Your task to perform on an android device: change the clock display to analog Image 0: 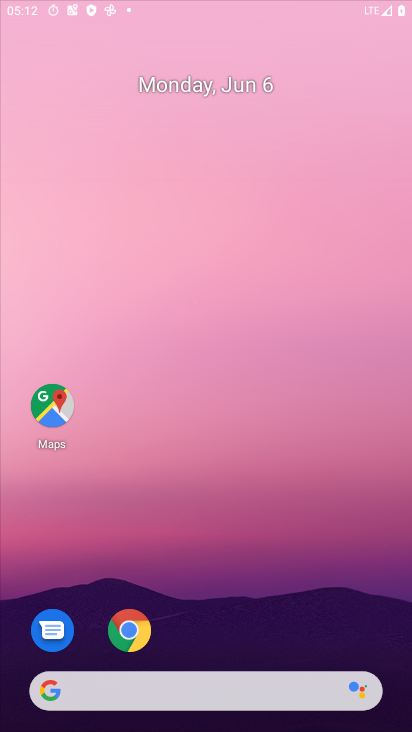
Step 0: click (390, 518)
Your task to perform on an android device: change the clock display to analog Image 1: 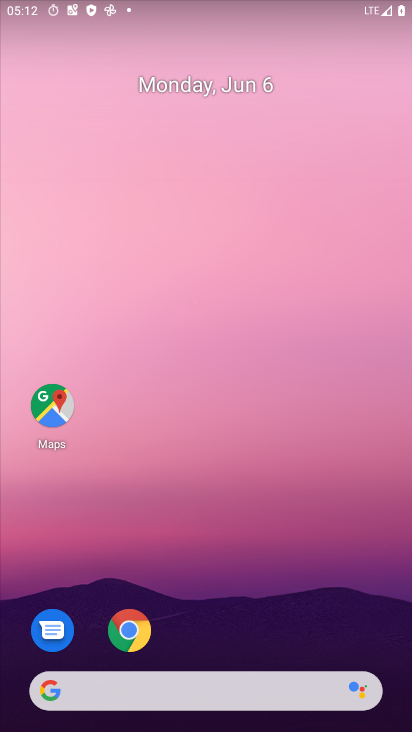
Step 1: drag from (267, 632) to (328, 138)
Your task to perform on an android device: change the clock display to analog Image 2: 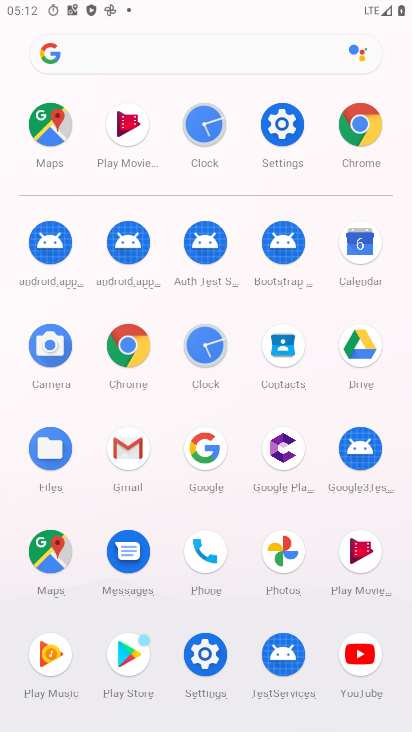
Step 2: click (213, 347)
Your task to perform on an android device: change the clock display to analog Image 3: 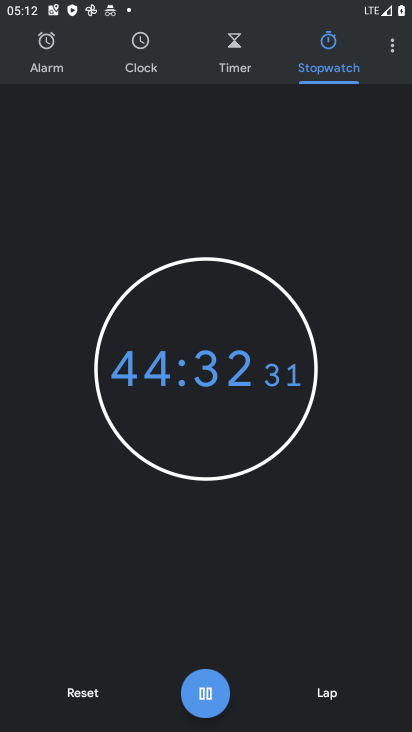
Step 3: click (395, 45)
Your task to perform on an android device: change the clock display to analog Image 4: 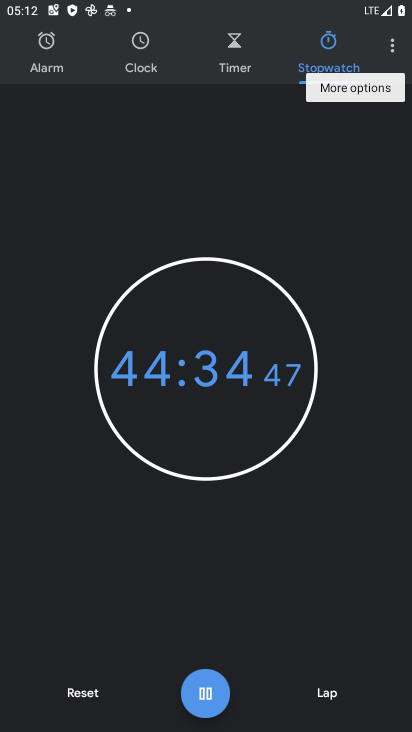
Step 4: click (395, 45)
Your task to perform on an android device: change the clock display to analog Image 5: 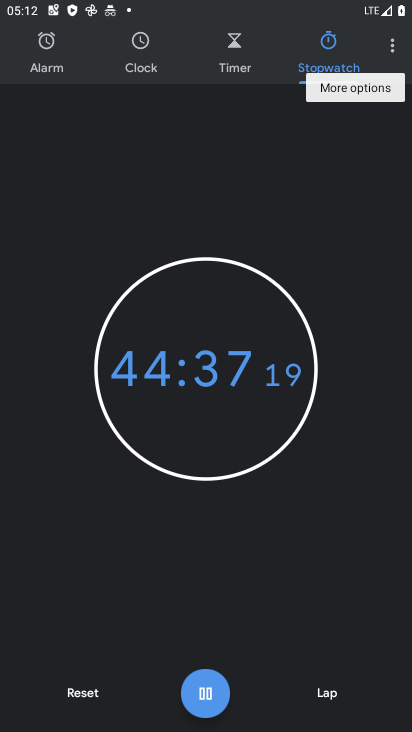
Step 5: click (390, 47)
Your task to perform on an android device: change the clock display to analog Image 6: 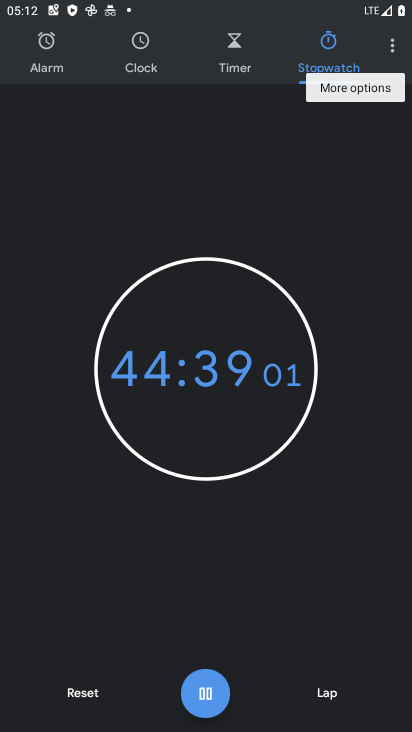
Step 6: click (394, 51)
Your task to perform on an android device: change the clock display to analog Image 7: 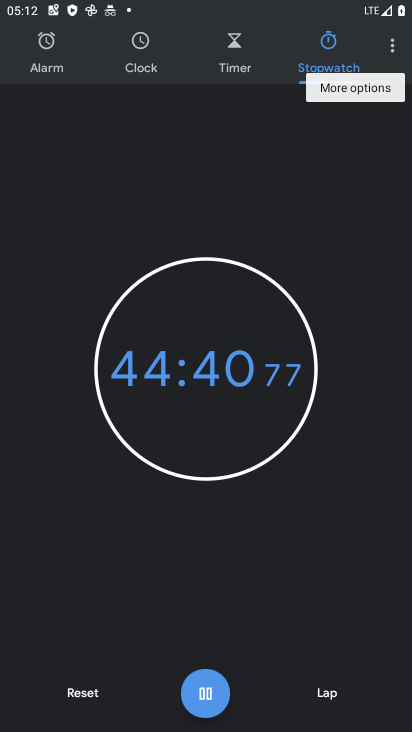
Step 7: click (394, 51)
Your task to perform on an android device: change the clock display to analog Image 8: 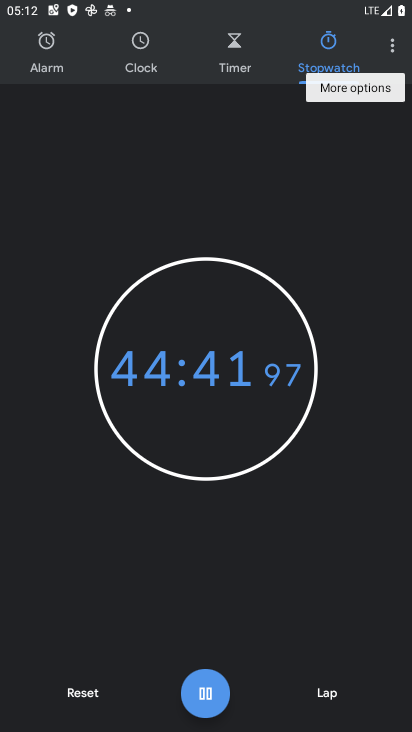
Step 8: click (394, 51)
Your task to perform on an android device: change the clock display to analog Image 9: 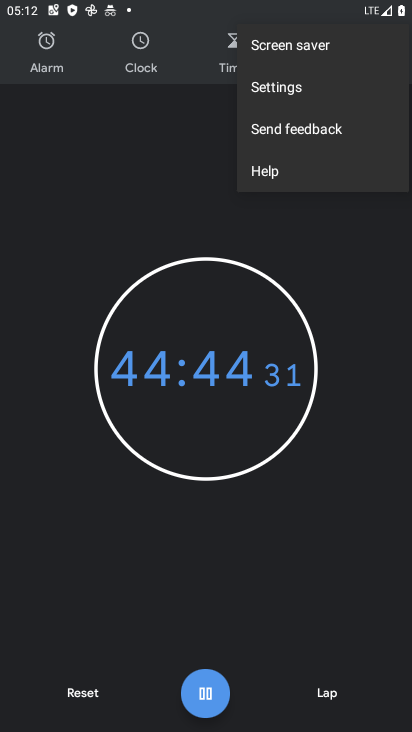
Step 9: click (292, 93)
Your task to perform on an android device: change the clock display to analog Image 10: 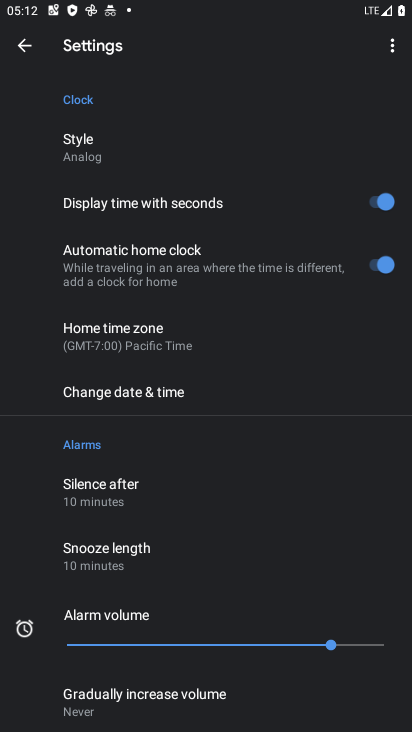
Step 10: click (80, 148)
Your task to perform on an android device: change the clock display to analog Image 11: 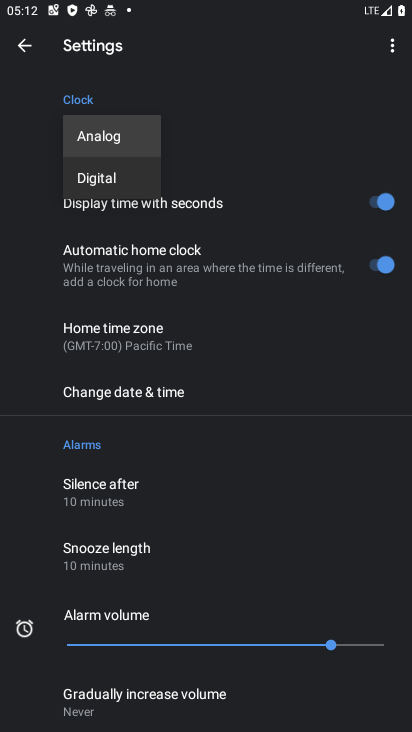
Step 11: click (113, 136)
Your task to perform on an android device: change the clock display to analog Image 12: 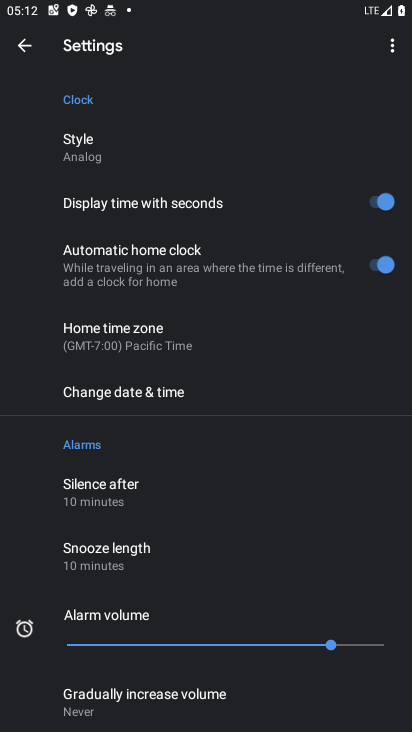
Step 12: task complete